Your task to perform on an android device: Clear the cart on bestbuy. Search for logitech g pro on bestbuy, select the first entry, add it to the cart, then select checkout. Image 0: 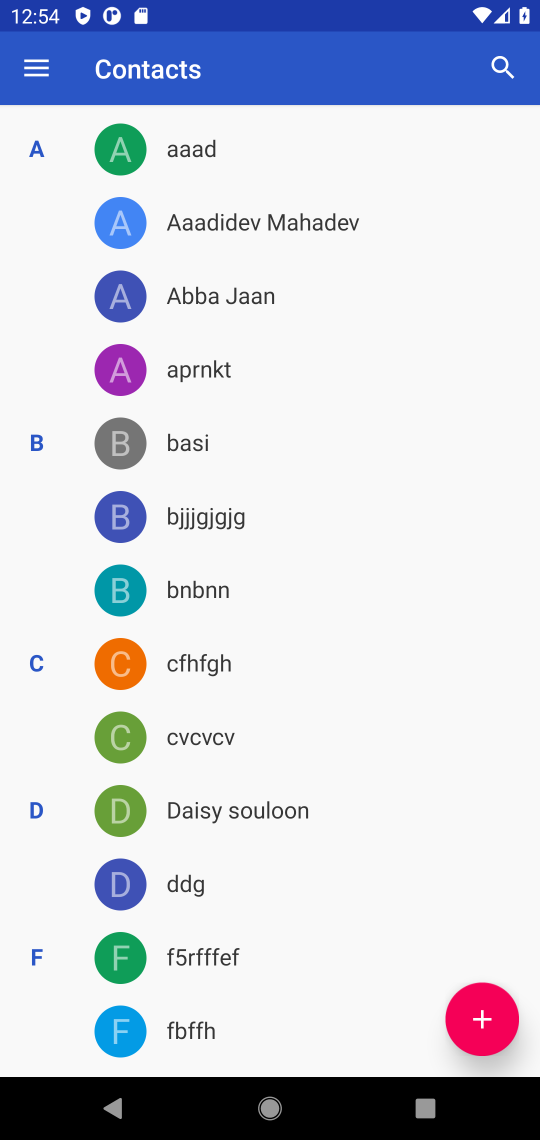
Step 0: press home button
Your task to perform on an android device: Clear the cart on bestbuy. Search for logitech g pro on bestbuy, select the first entry, add it to the cart, then select checkout. Image 1: 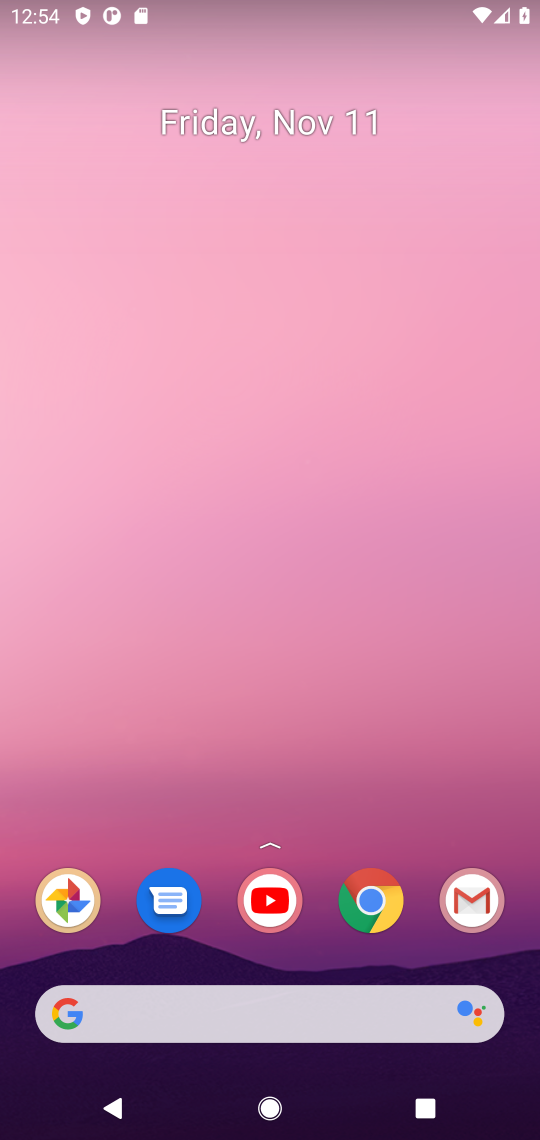
Step 1: click (367, 904)
Your task to perform on an android device: Clear the cart on bestbuy. Search for logitech g pro on bestbuy, select the first entry, add it to the cart, then select checkout. Image 2: 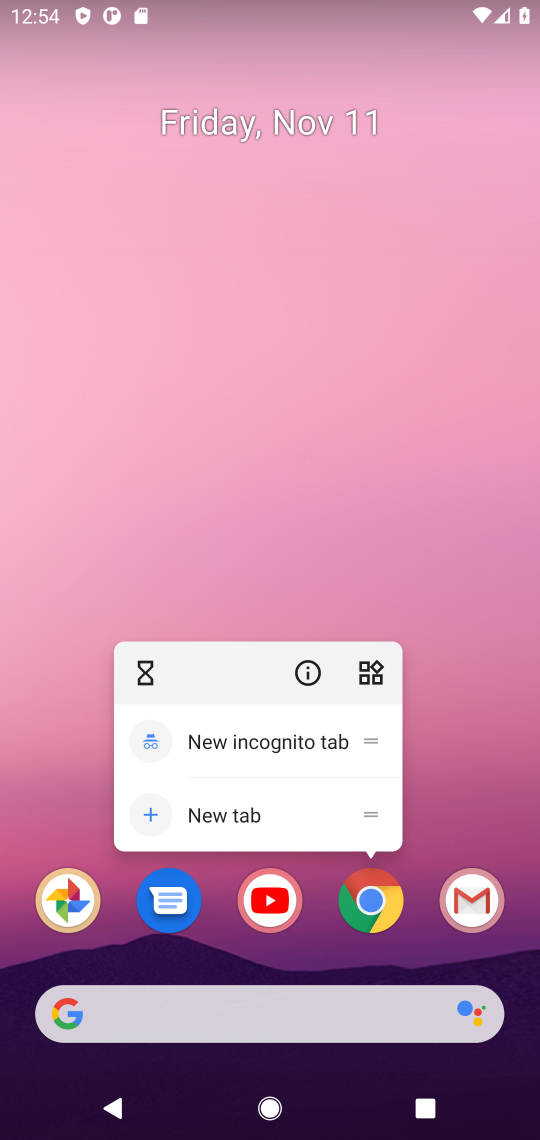
Step 2: click (367, 904)
Your task to perform on an android device: Clear the cart on bestbuy. Search for logitech g pro on bestbuy, select the first entry, add it to the cart, then select checkout. Image 3: 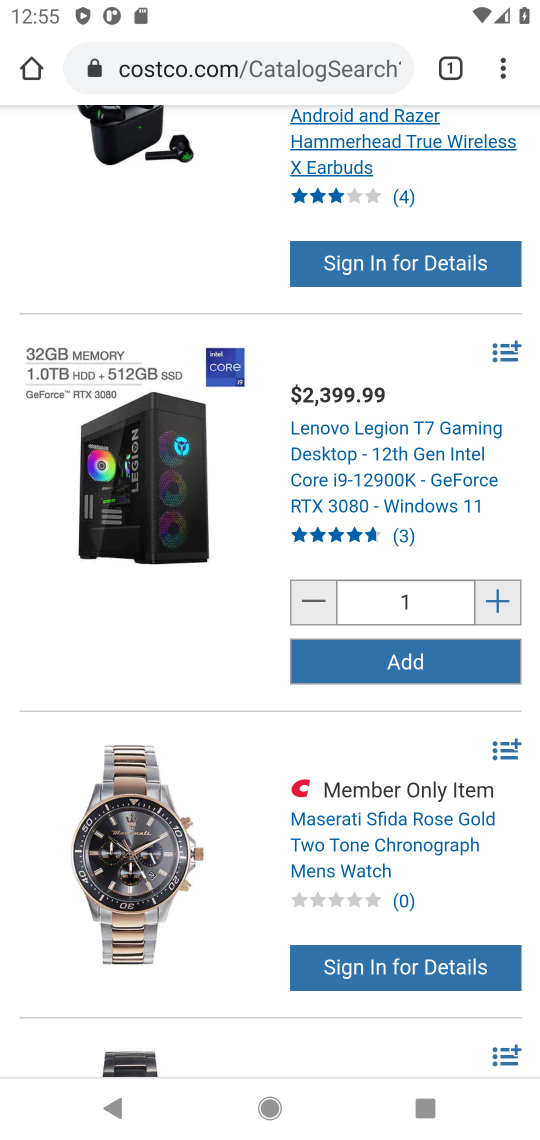
Step 3: click (326, 67)
Your task to perform on an android device: Clear the cart on bestbuy. Search for logitech g pro on bestbuy, select the first entry, add it to the cart, then select checkout. Image 4: 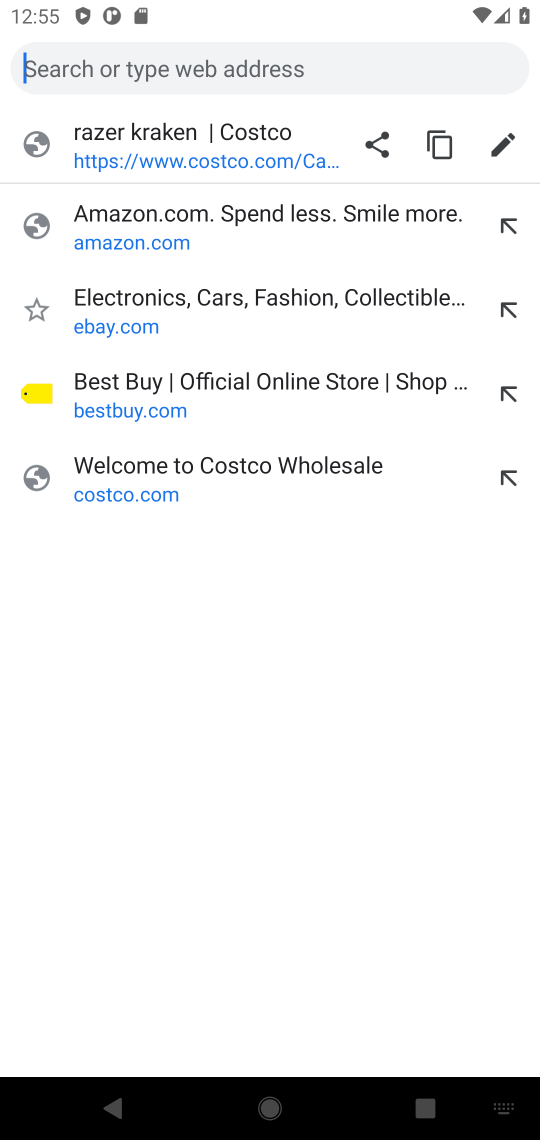
Step 4: click (133, 411)
Your task to perform on an android device: Clear the cart on bestbuy. Search for logitech g pro on bestbuy, select the first entry, add it to the cart, then select checkout. Image 5: 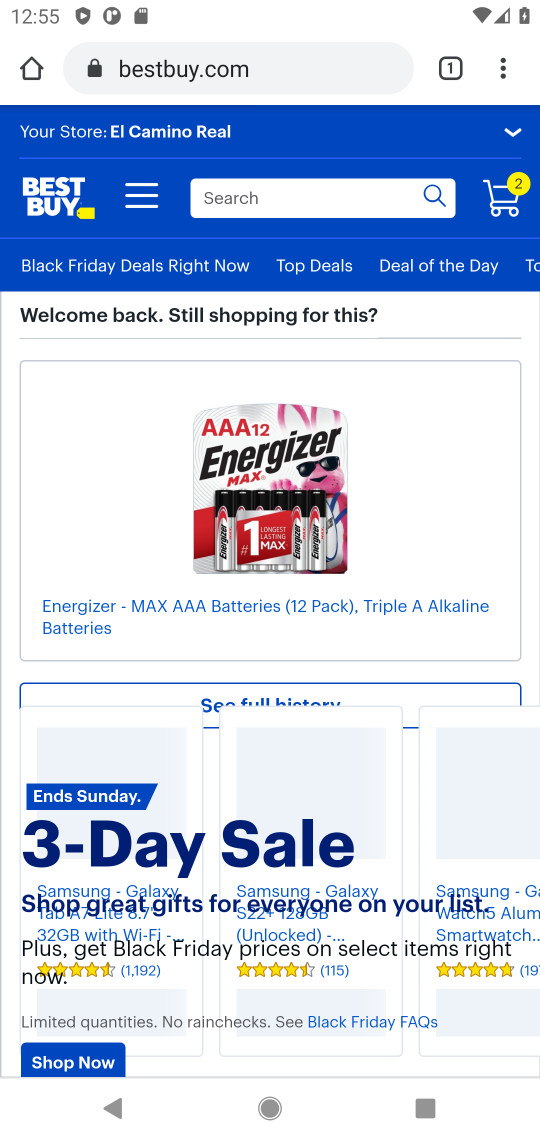
Step 5: click (259, 195)
Your task to perform on an android device: Clear the cart on bestbuy. Search for logitech g pro on bestbuy, select the first entry, add it to the cart, then select checkout. Image 6: 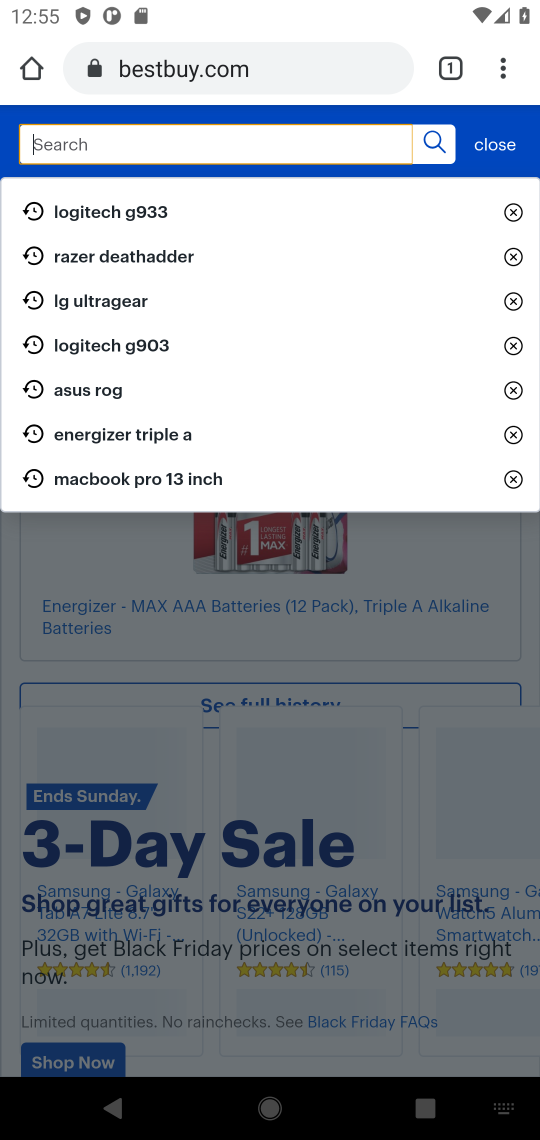
Step 6: type " logitech g pro"
Your task to perform on an android device: Clear the cart on bestbuy. Search for logitech g pro on bestbuy, select the first entry, add it to the cart, then select checkout. Image 7: 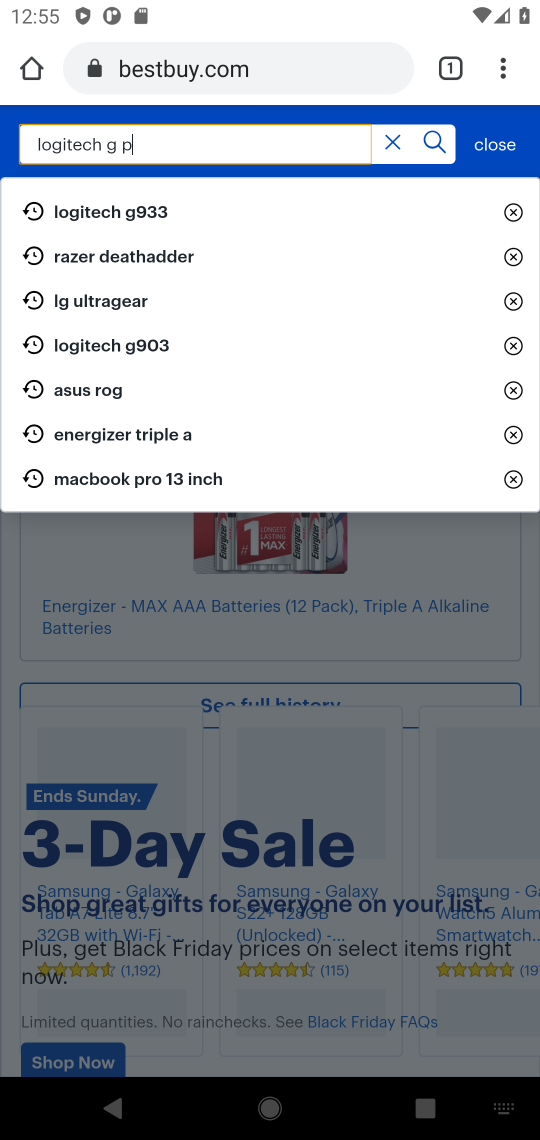
Step 7: press enter
Your task to perform on an android device: Clear the cart on bestbuy. Search for logitech g pro on bestbuy, select the first entry, add it to the cart, then select checkout. Image 8: 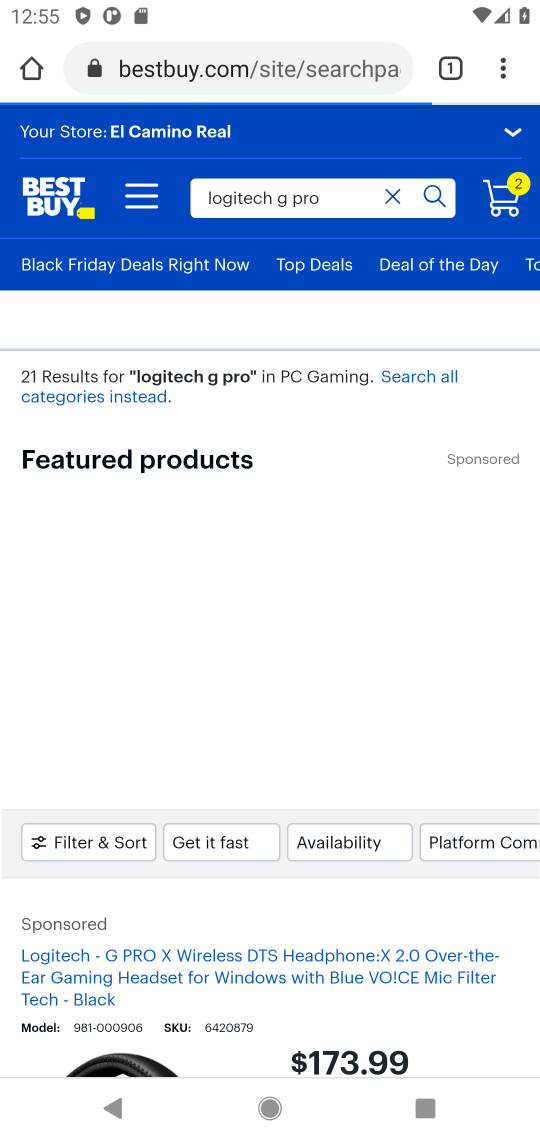
Step 8: drag from (274, 990) to (398, 476)
Your task to perform on an android device: Clear the cart on bestbuy. Search for logitech g pro on bestbuy, select the first entry, add it to the cart, then select checkout. Image 9: 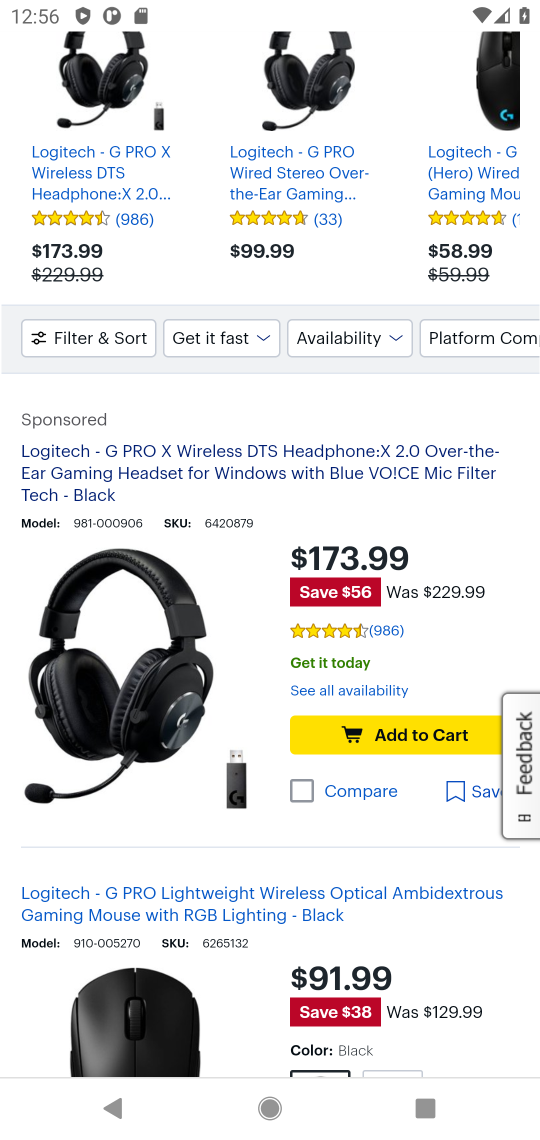
Step 9: click (406, 731)
Your task to perform on an android device: Clear the cart on bestbuy. Search for logitech g pro on bestbuy, select the first entry, add it to the cart, then select checkout. Image 10: 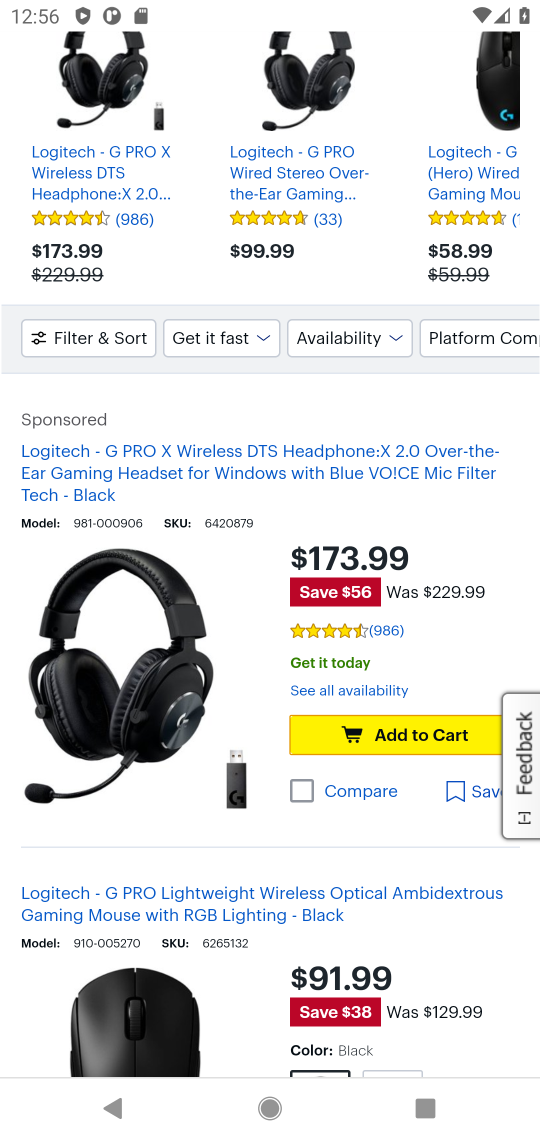
Step 10: click (406, 735)
Your task to perform on an android device: Clear the cart on bestbuy. Search for logitech g pro on bestbuy, select the first entry, add it to the cart, then select checkout. Image 11: 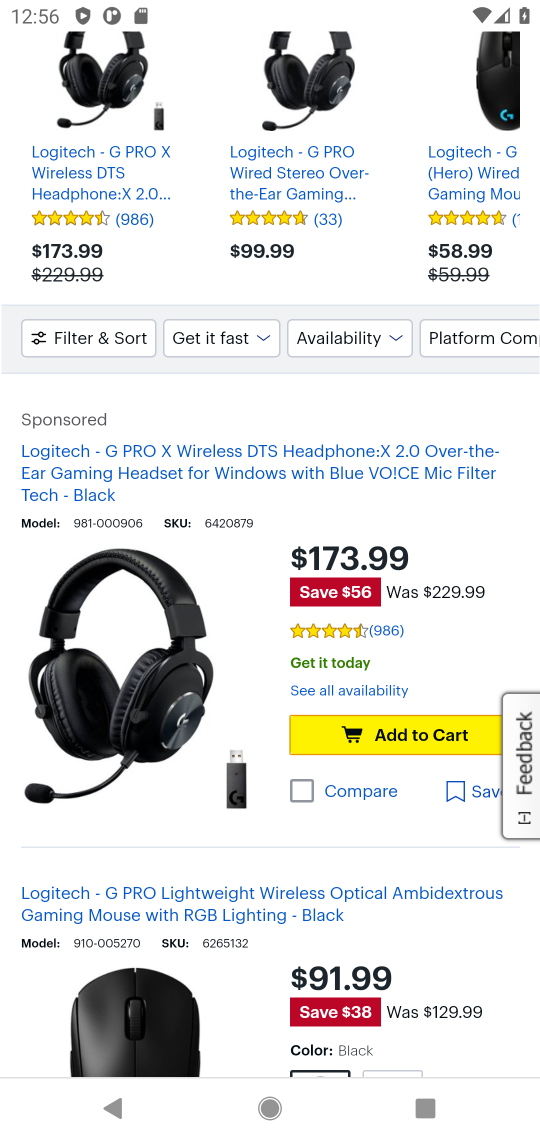
Step 11: click (402, 736)
Your task to perform on an android device: Clear the cart on bestbuy. Search for logitech g pro on bestbuy, select the first entry, add it to the cart, then select checkout. Image 12: 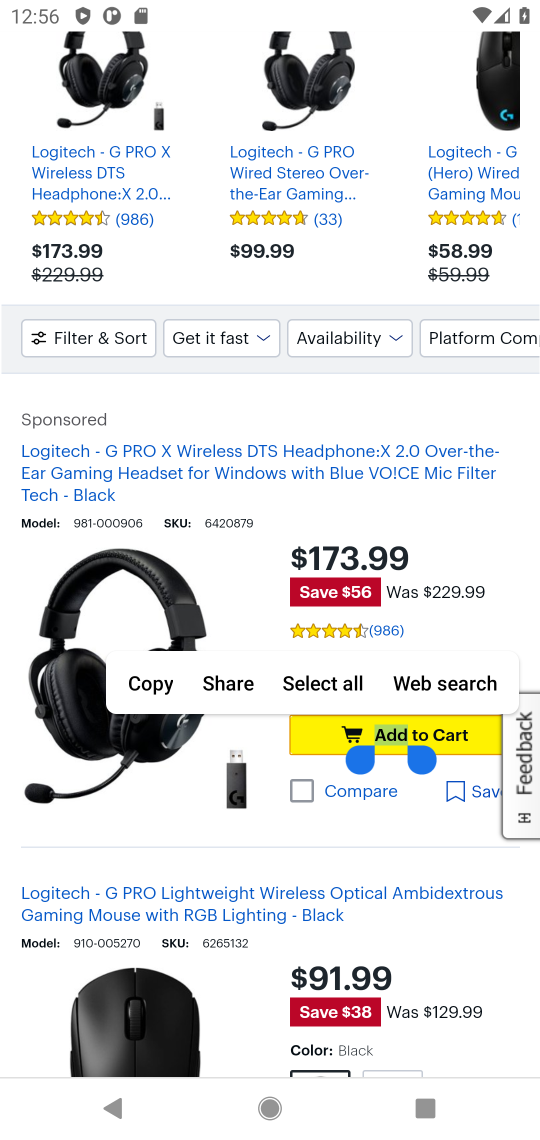
Step 12: click (438, 728)
Your task to perform on an android device: Clear the cart on bestbuy. Search for logitech g pro on bestbuy, select the first entry, add it to the cart, then select checkout. Image 13: 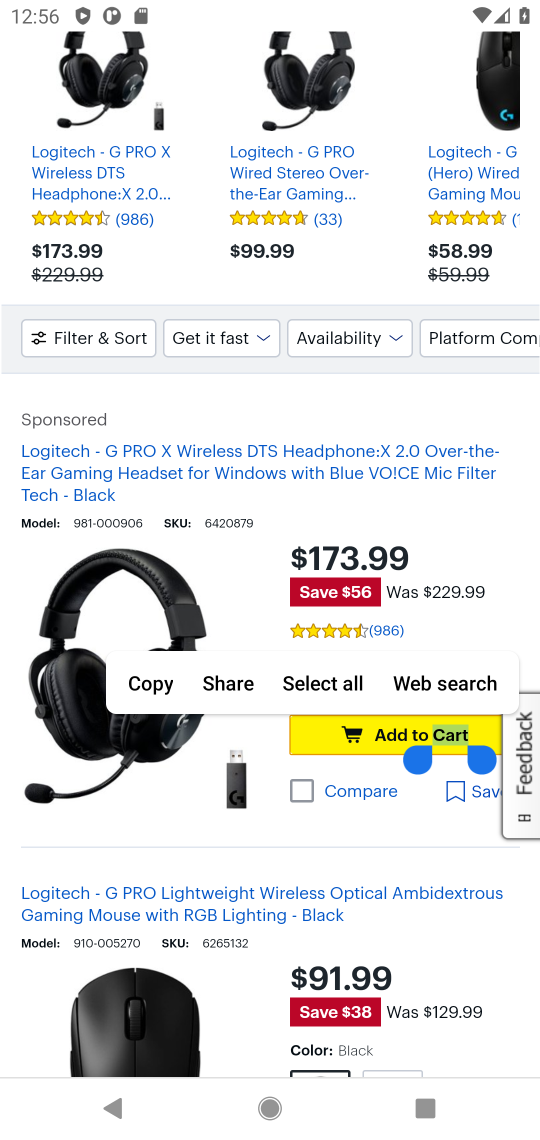
Step 13: click (407, 734)
Your task to perform on an android device: Clear the cart on bestbuy. Search for logitech g pro on bestbuy, select the first entry, add it to the cart, then select checkout. Image 14: 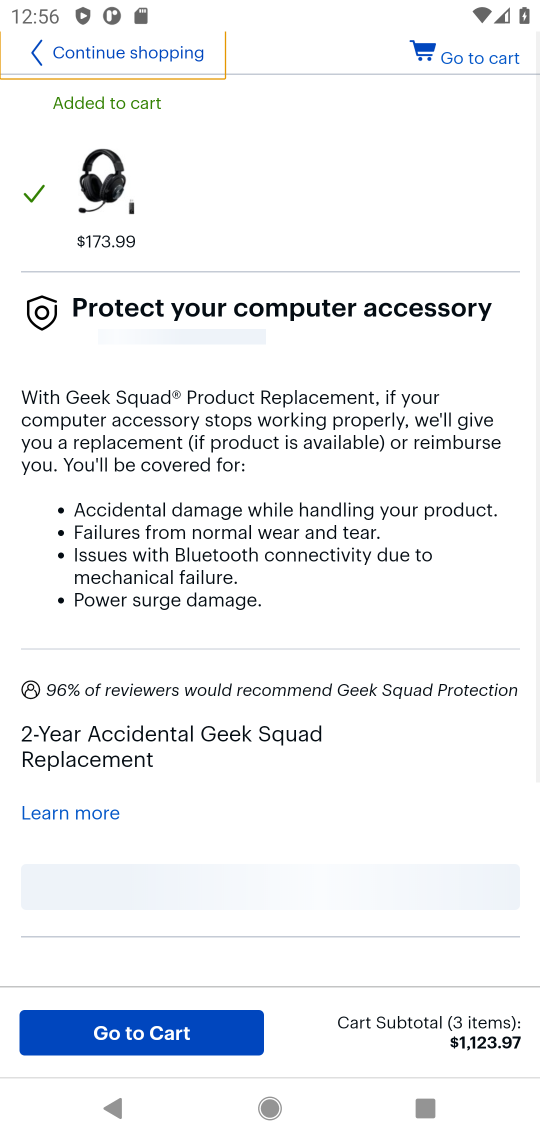
Step 14: click (496, 56)
Your task to perform on an android device: Clear the cart on bestbuy. Search for logitech g pro on bestbuy, select the first entry, add it to the cart, then select checkout. Image 15: 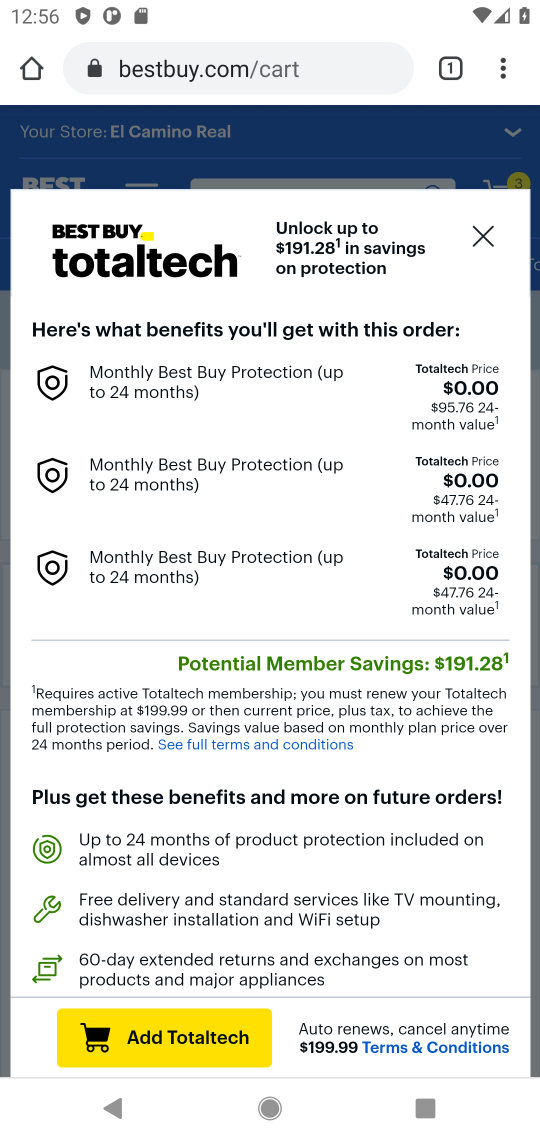
Step 15: click (487, 241)
Your task to perform on an android device: Clear the cart on bestbuy. Search for logitech g pro on bestbuy, select the first entry, add it to the cart, then select checkout. Image 16: 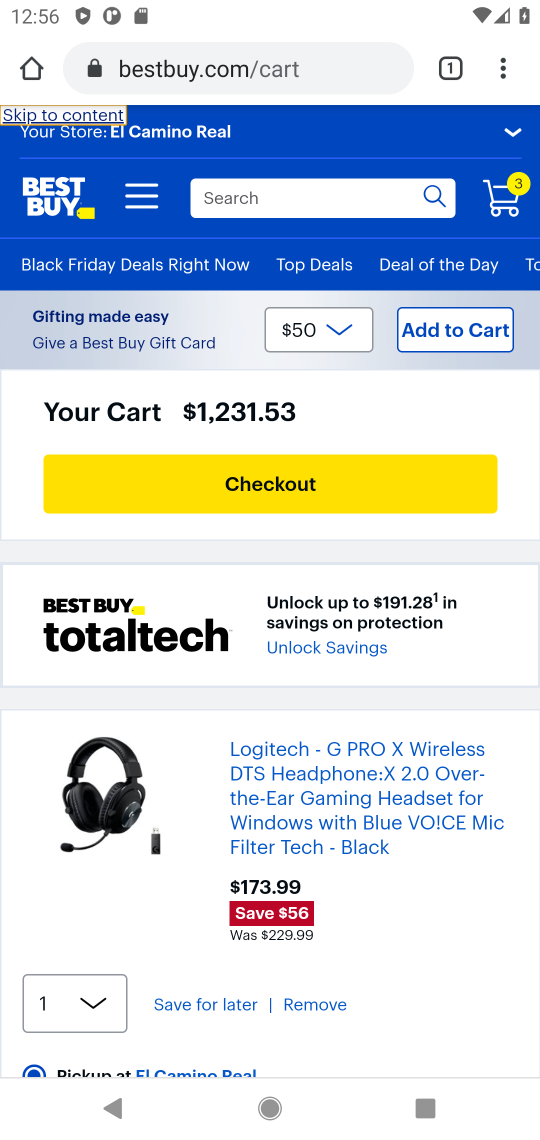
Step 16: click (284, 479)
Your task to perform on an android device: Clear the cart on bestbuy. Search for logitech g pro on bestbuy, select the first entry, add it to the cart, then select checkout. Image 17: 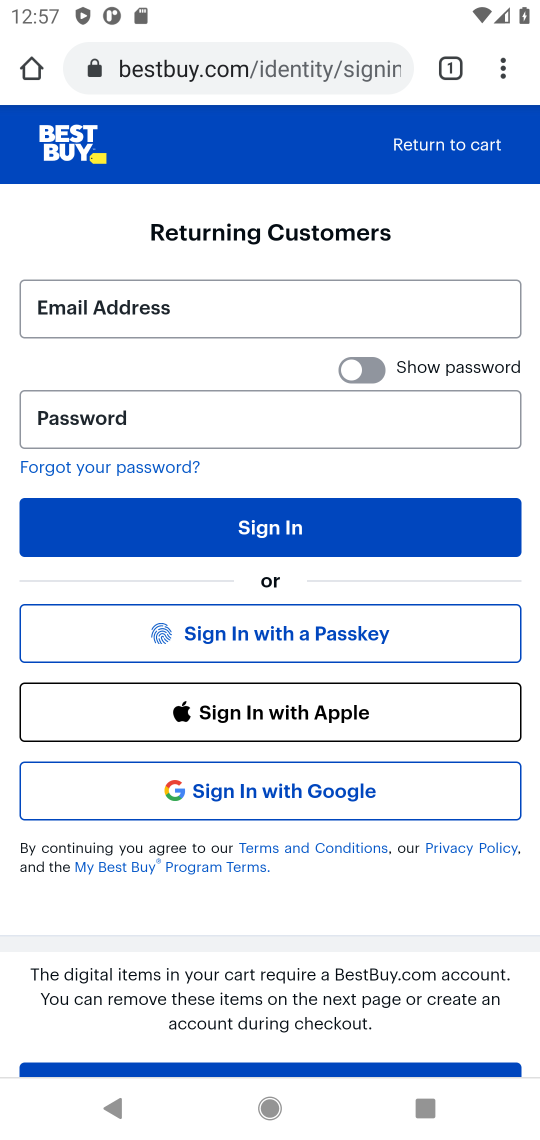
Step 17: task complete